Your task to perform on an android device: stop showing notifications on the lock screen Image 0: 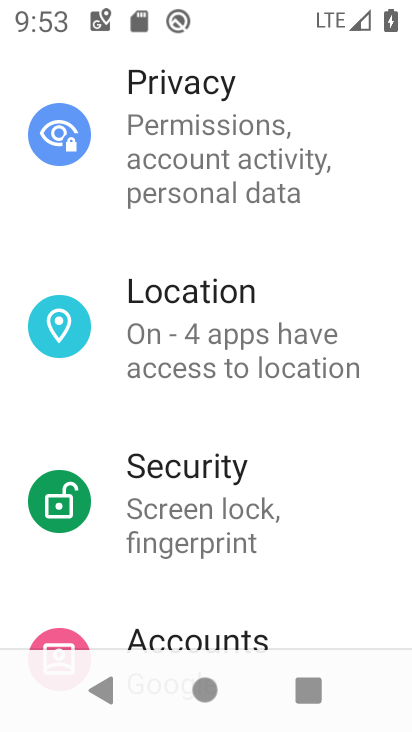
Step 0: drag from (110, 107) to (101, 699)
Your task to perform on an android device: stop showing notifications on the lock screen Image 1: 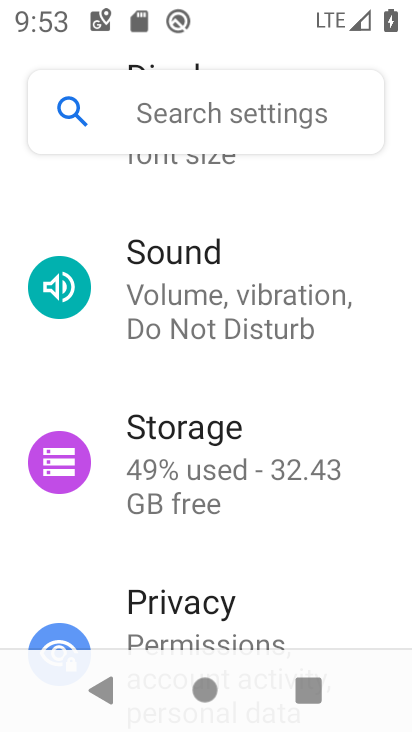
Step 1: drag from (111, 158) to (105, 717)
Your task to perform on an android device: stop showing notifications on the lock screen Image 2: 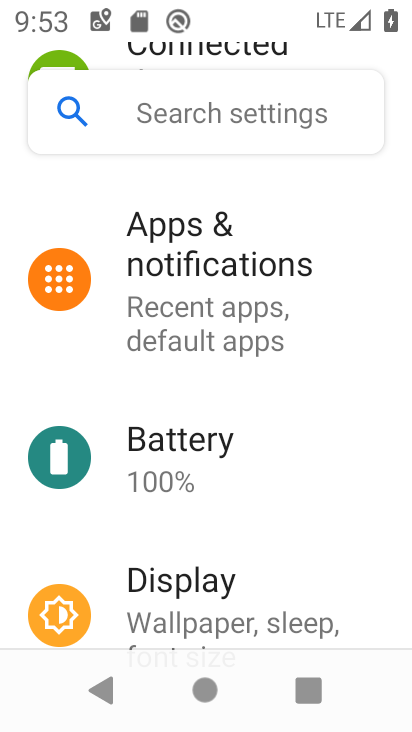
Step 2: click (120, 260)
Your task to perform on an android device: stop showing notifications on the lock screen Image 3: 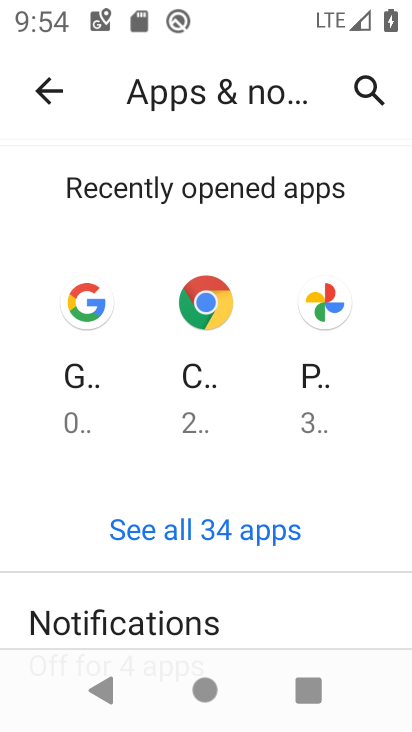
Step 3: click (242, 612)
Your task to perform on an android device: stop showing notifications on the lock screen Image 4: 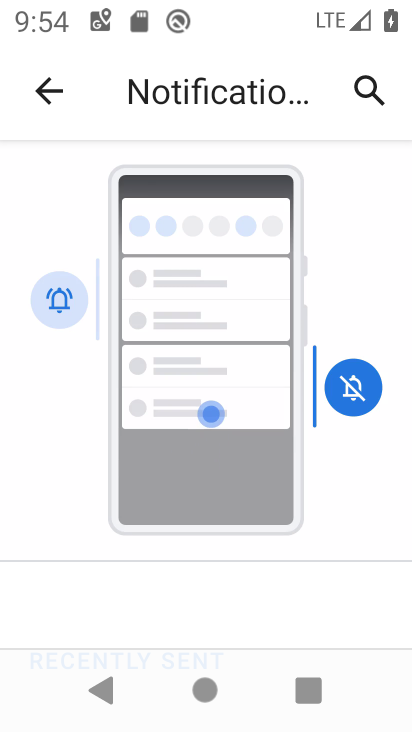
Step 4: drag from (233, 588) to (250, 80)
Your task to perform on an android device: stop showing notifications on the lock screen Image 5: 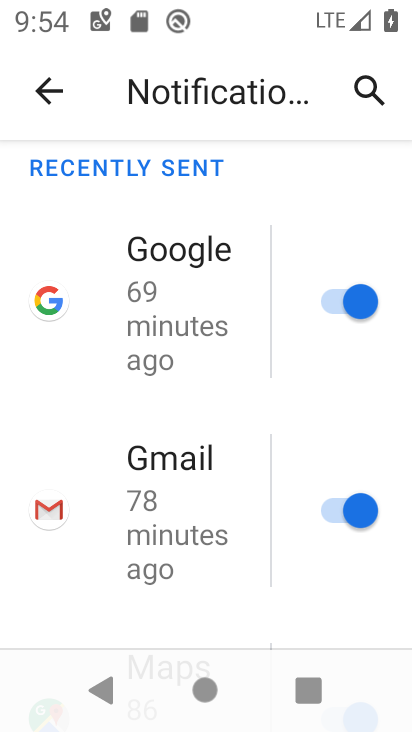
Step 5: drag from (231, 610) to (253, 153)
Your task to perform on an android device: stop showing notifications on the lock screen Image 6: 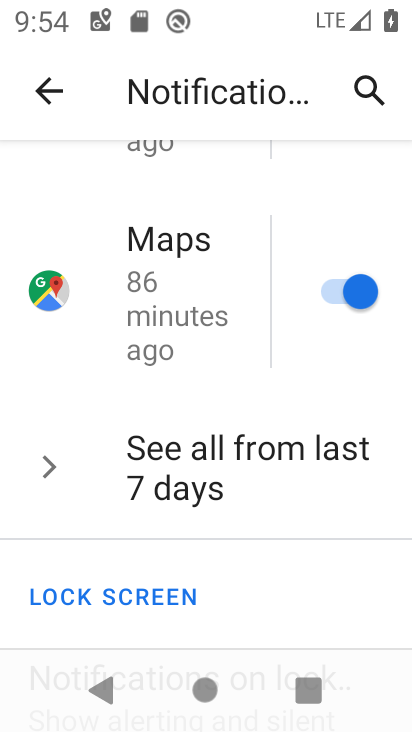
Step 6: drag from (234, 603) to (258, 118)
Your task to perform on an android device: stop showing notifications on the lock screen Image 7: 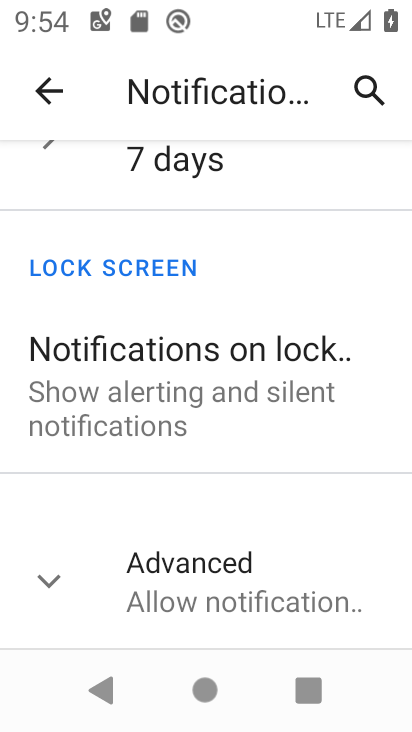
Step 7: click (171, 371)
Your task to perform on an android device: stop showing notifications on the lock screen Image 8: 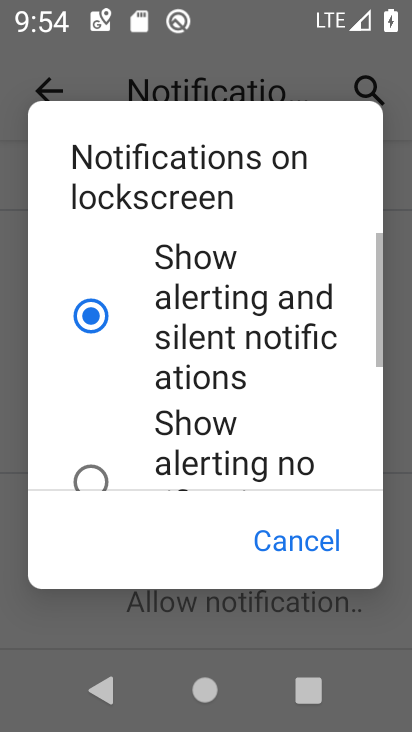
Step 8: drag from (142, 438) to (163, 108)
Your task to perform on an android device: stop showing notifications on the lock screen Image 9: 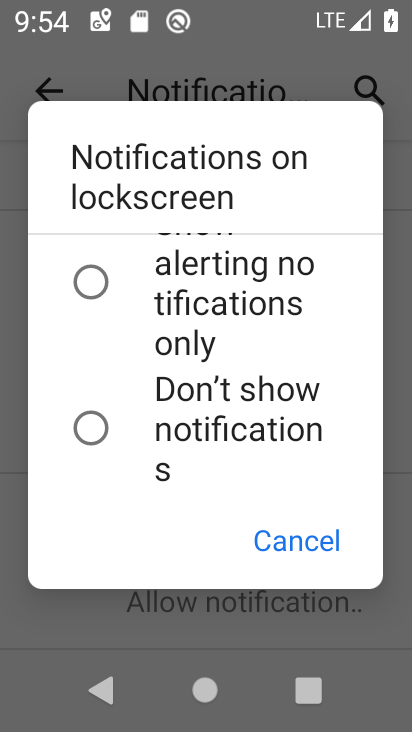
Step 9: click (95, 424)
Your task to perform on an android device: stop showing notifications on the lock screen Image 10: 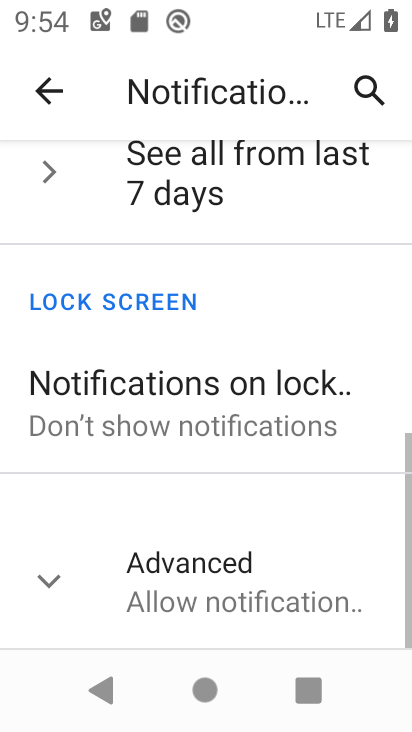
Step 10: task complete